Your task to perform on an android device: Open maps Image 0: 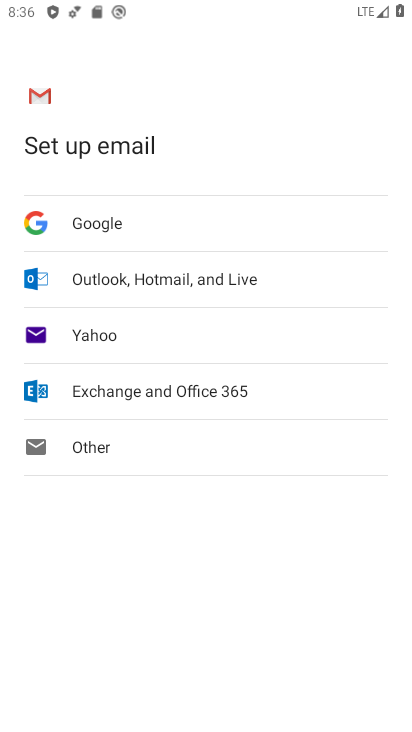
Step 0: press home button
Your task to perform on an android device: Open maps Image 1: 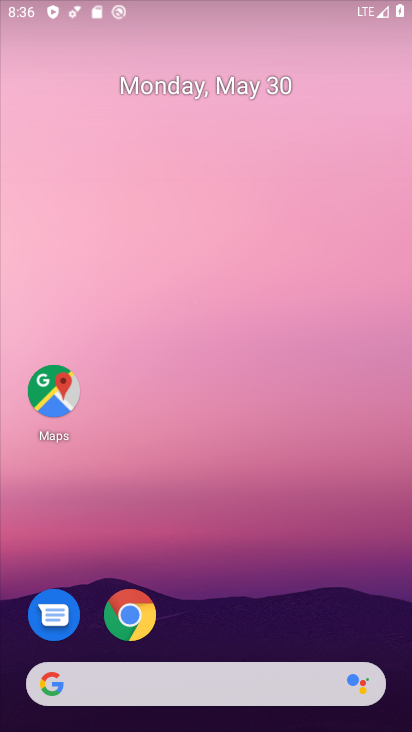
Step 1: click (60, 385)
Your task to perform on an android device: Open maps Image 2: 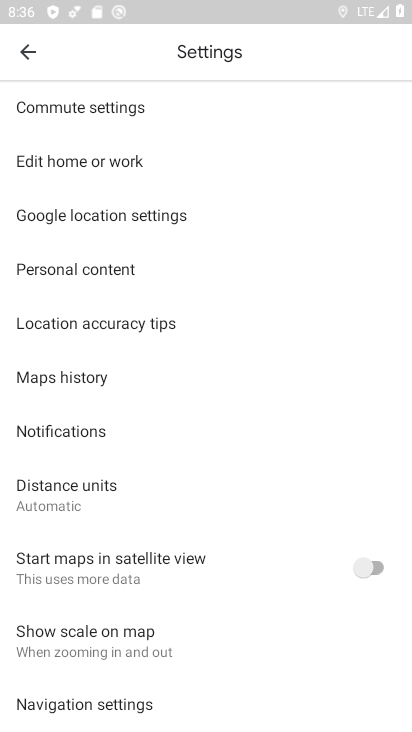
Step 2: click (34, 57)
Your task to perform on an android device: Open maps Image 3: 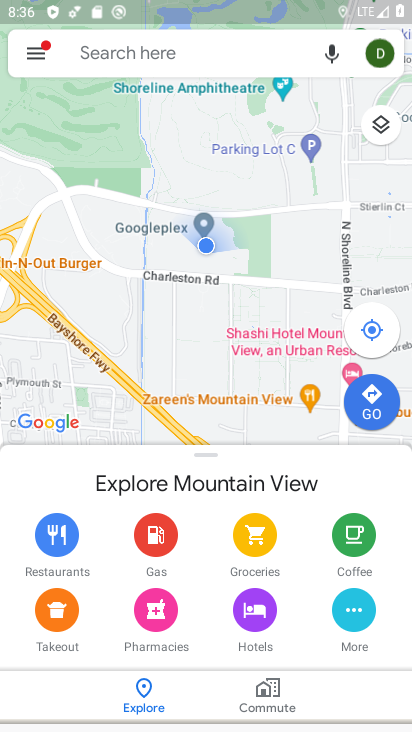
Step 3: click (34, 57)
Your task to perform on an android device: Open maps Image 4: 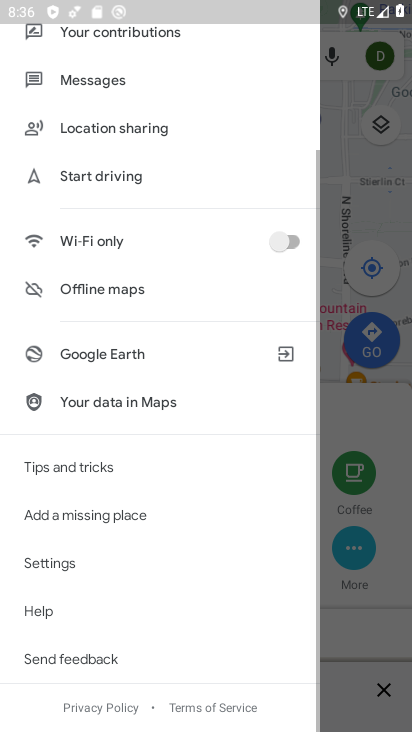
Step 4: click (349, 230)
Your task to perform on an android device: Open maps Image 5: 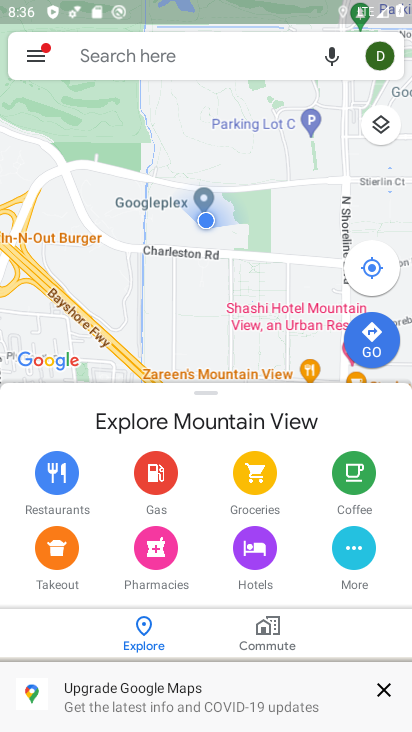
Step 5: task complete